Your task to perform on an android device: toggle notifications settings in the gmail app Image 0: 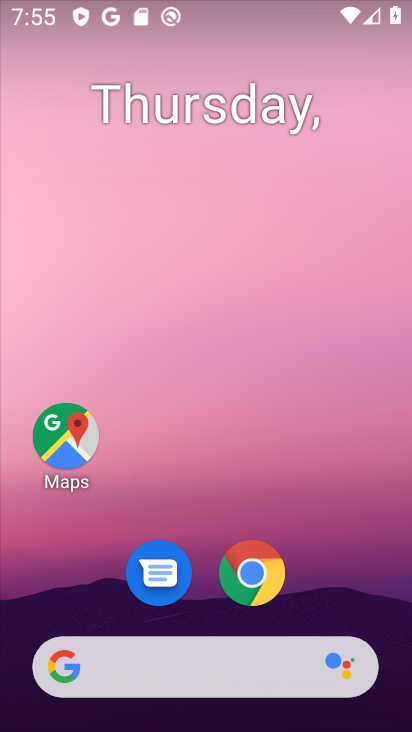
Step 0: drag from (369, 571) to (336, 126)
Your task to perform on an android device: toggle notifications settings in the gmail app Image 1: 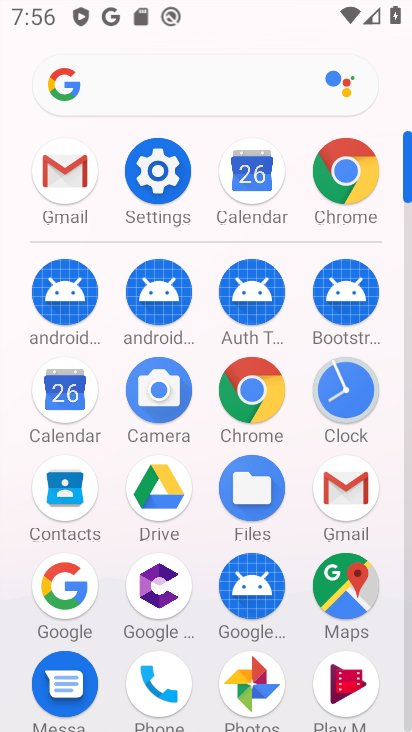
Step 1: click (353, 503)
Your task to perform on an android device: toggle notifications settings in the gmail app Image 2: 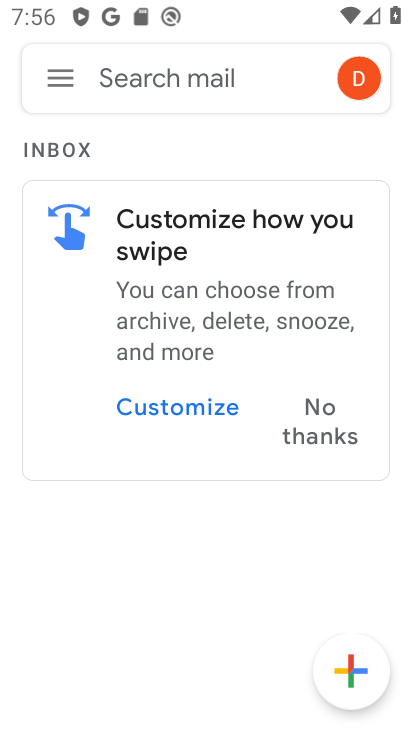
Step 2: click (70, 90)
Your task to perform on an android device: toggle notifications settings in the gmail app Image 3: 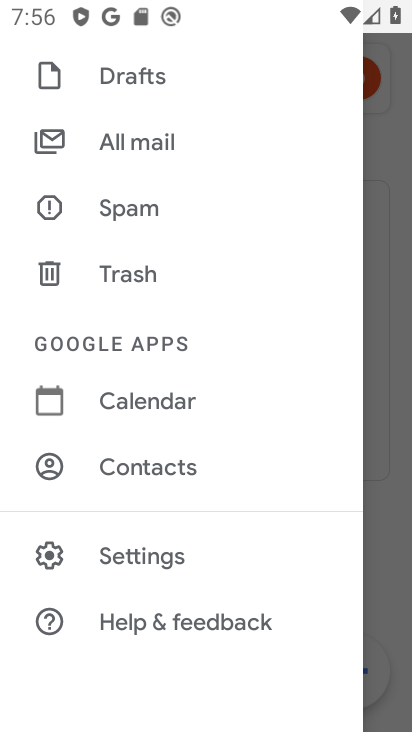
Step 3: click (147, 565)
Your task to perform on an android device: toggle notifications settings in the gmail app Image 4: 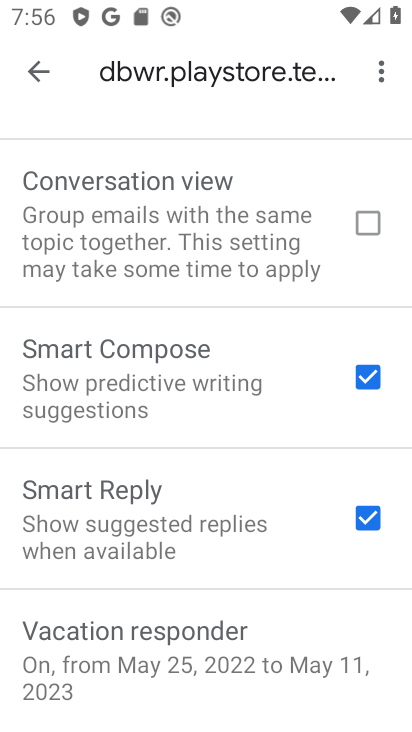
Step 4: drag from (160, 272) to (127, 571)
Your task to perform on an android device: toggle notifications settings in the gmail app Image 5: 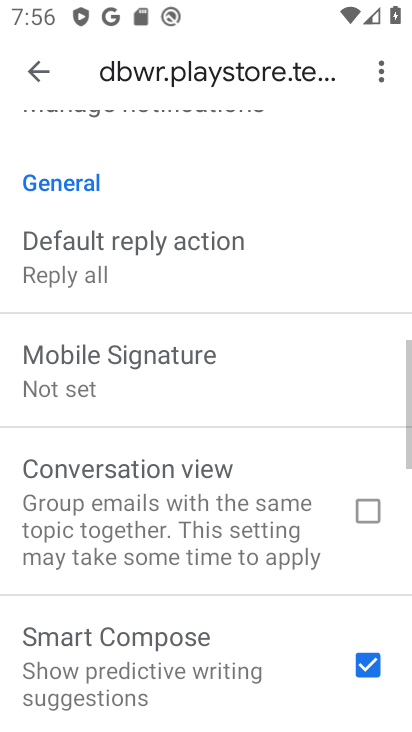
Step 5: drag from (136, 287) to (109, 633)
Your task to perform on an android device: toggle notifications settings in the gmail app Image 6: 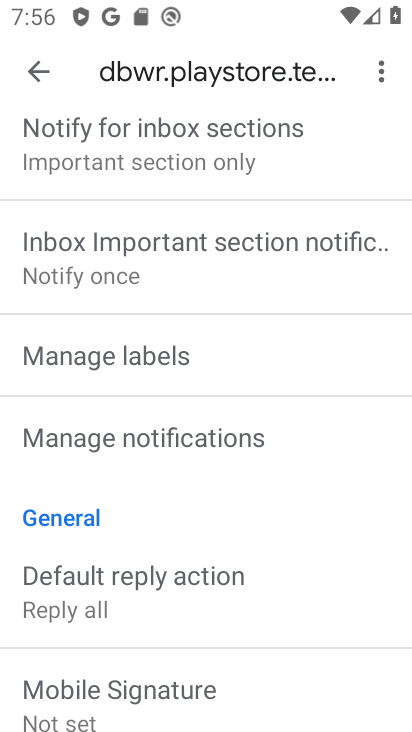
Step 6: drag from (122, 318) to (105, 676)
Your task to perform on an android device: toggle notifications settings in the gmail app Image 7: 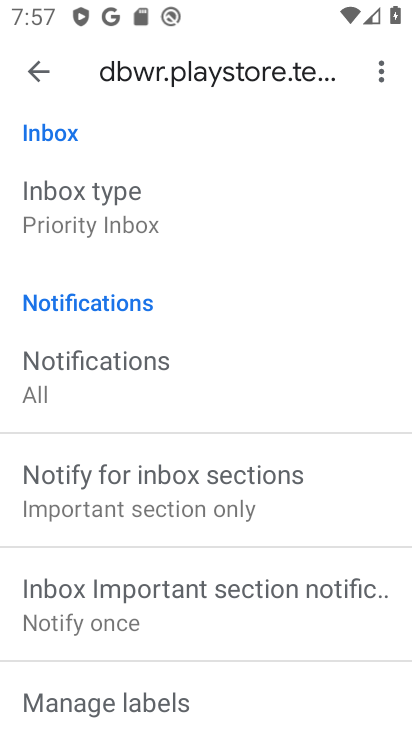
Step 7: click (79, 347)
Your task to perform on an android device: toggle notifications settings in the gmail app Image 8: 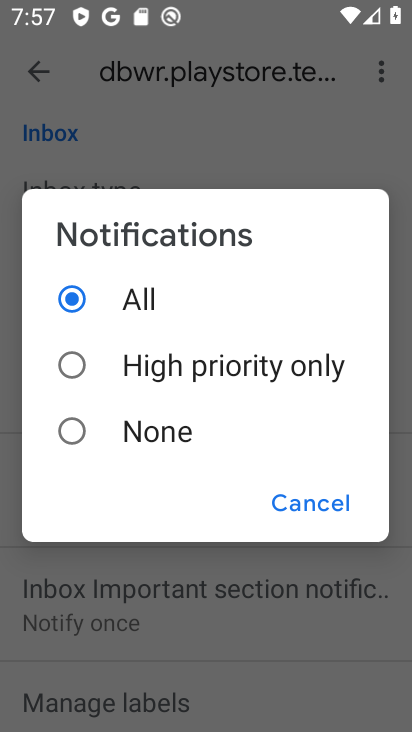
Step 8: click (64, 429)
Your task to perform on an android device: toggle notifications settings in the gmail app Image 9: 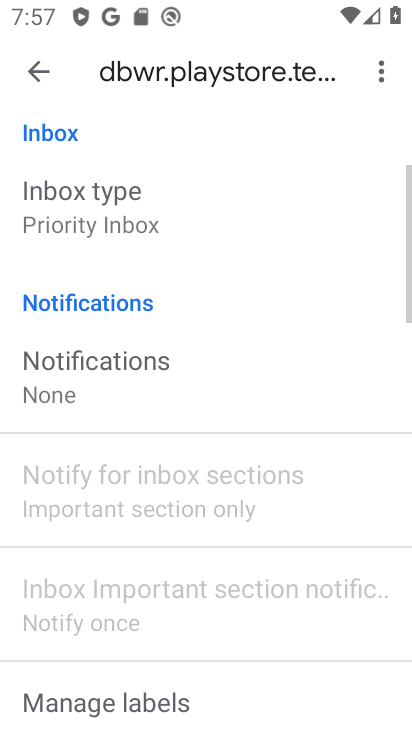
Step 9: task complete